Your task to perform on an android device: turn pop-ups on in chrome Image 0: 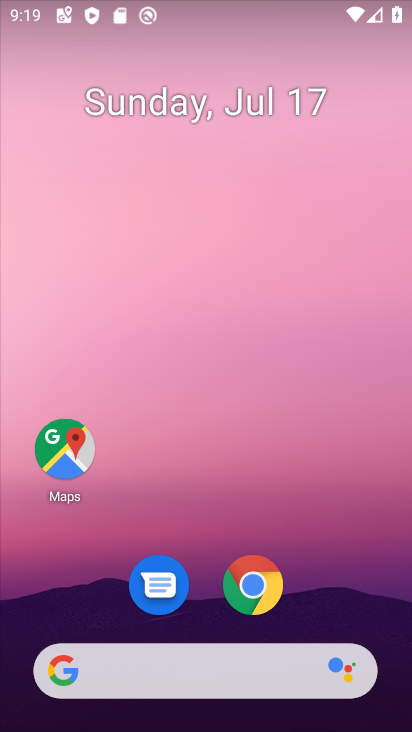
Step 0: click (267, 592)
Your task to perform on an android device: turn pop-ups on in chrome Image 1: 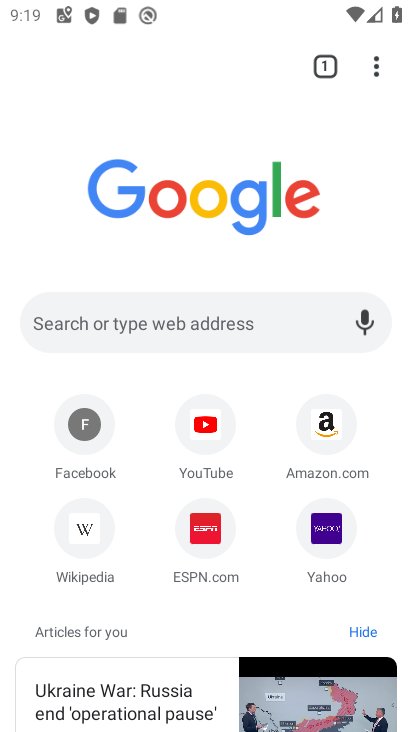
Step 1: click (372, 64)
Your task to perform on an android device: turn pop-ups on in chrome Image 2: 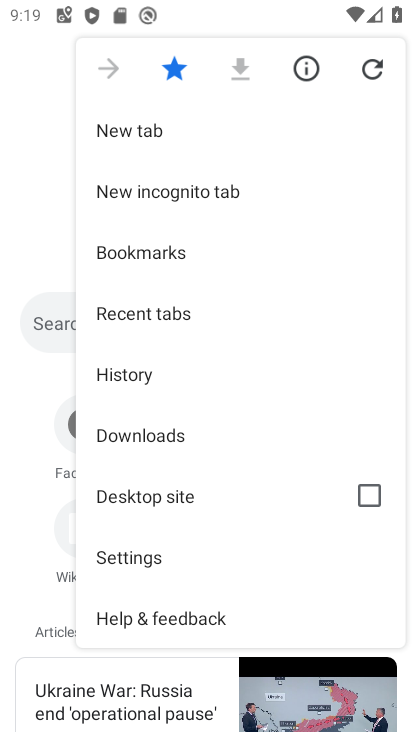
Step 2: click (152, 561)
Your task to perform on an android device: turn pop-ups on in chrome Image 3: 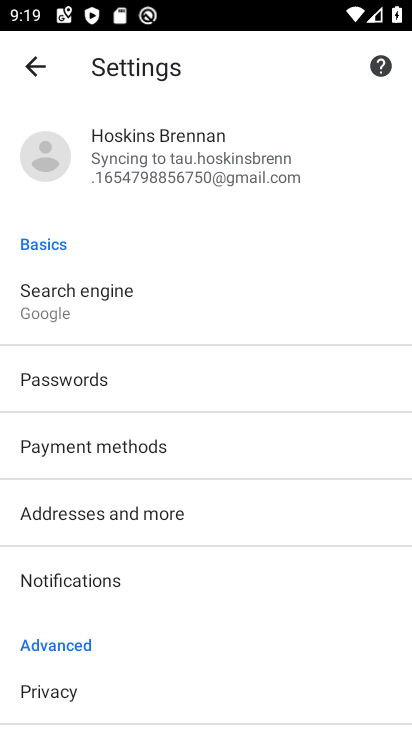
Step 3: drag from (201, 605) to (182, 213)
Your task to perform on an android device: turn pop-ups on in chrome Image 4: 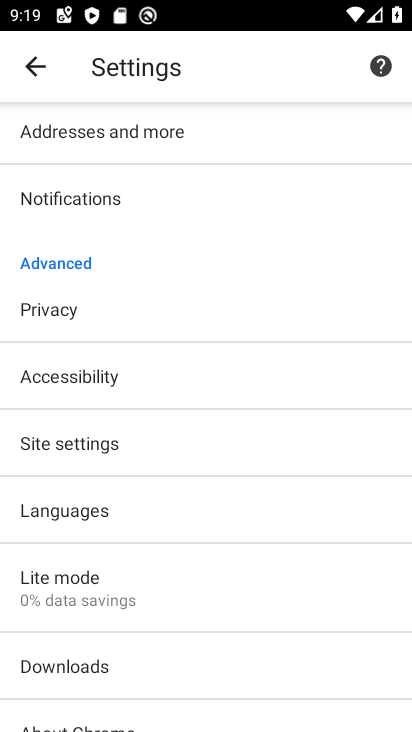
Step 4: click (95, 438)
Your task to perform on an android device: turn pop-ups on in chrome Image 5: 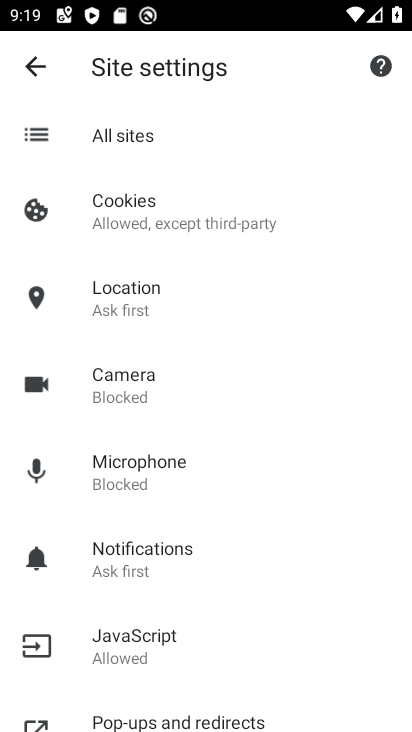
Step 5: drag from (233, 544) to (240, 321)
Your task to perform on an android device: turn pop-ups on in chrome Image 6: 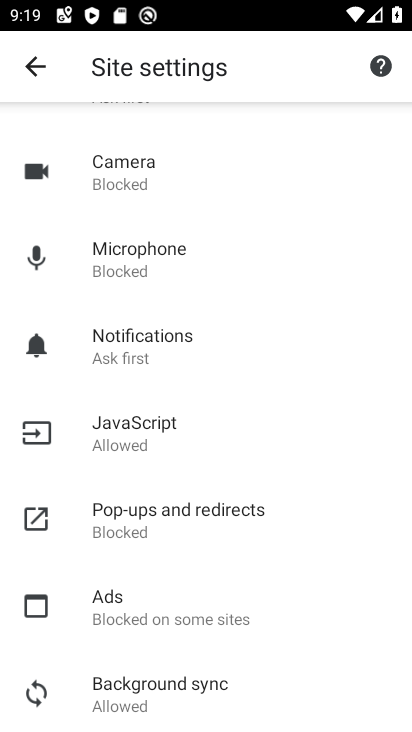
Step 6: click (182, 514)
Your task to perform on an android device: turn pop-ups on in chrome Image 7: 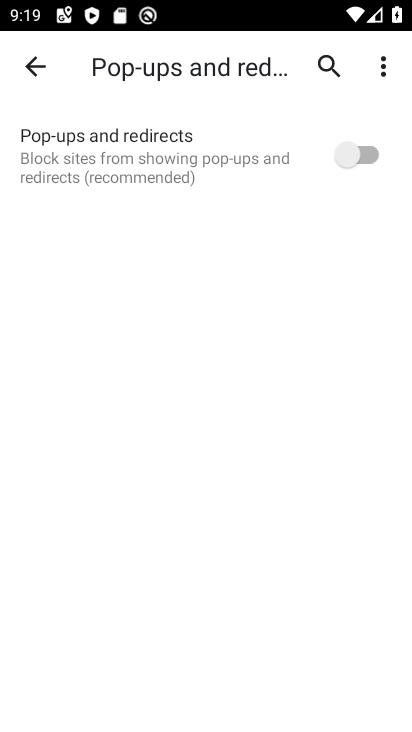
Step 7: click (361, 152)
Your task to perform on an android device: turn pop-ups on in chrome Image 8: 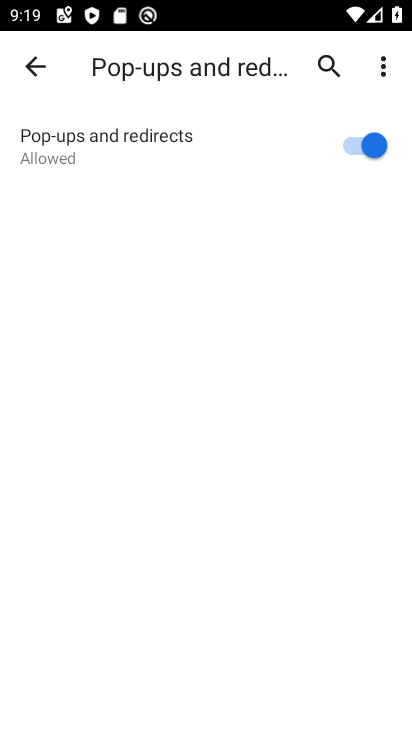
Step 8: task complete